Your task to perform on an android device: Open Google Maps and go to "Timeline" Image 0: 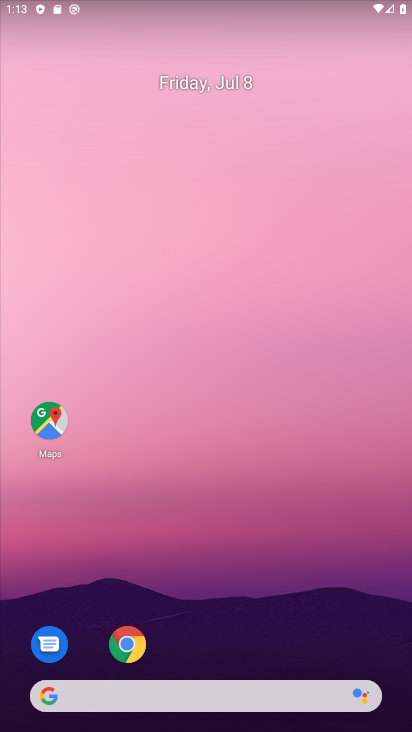
Step 0: press home button
Your task to perform on an android device: Open Google Maps and go to "Timeline" Image 1: 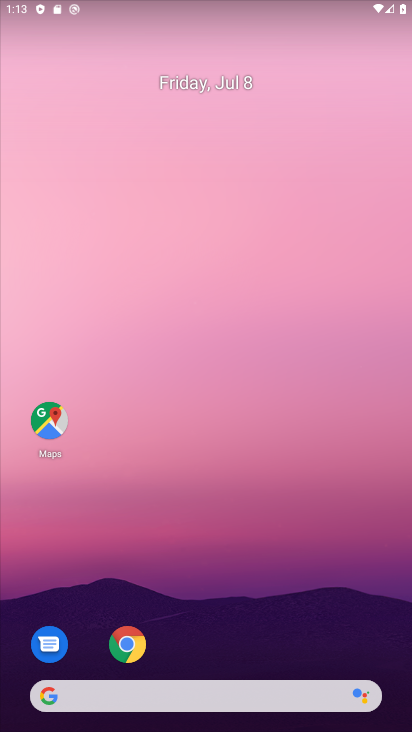
Step 1: drag from (279, 621) to (240, 195)
Your task to perform on an android device: Open Google Maps and go to "Timeline" Image 2: 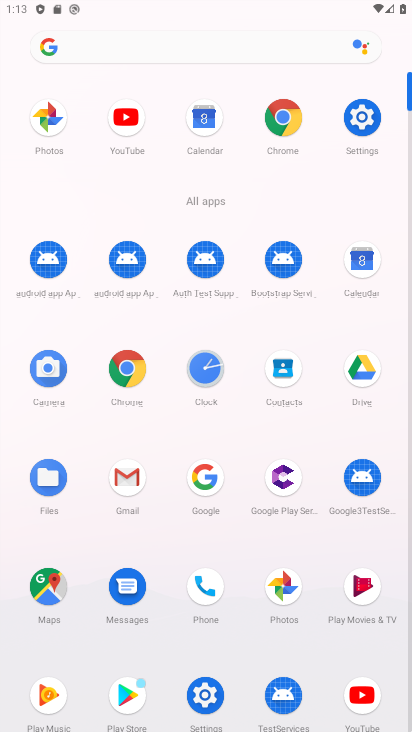
Step 2: click (45, 587)
Your task to perform on an android device: Open Google Maps and go to "Timeline" Image 3: 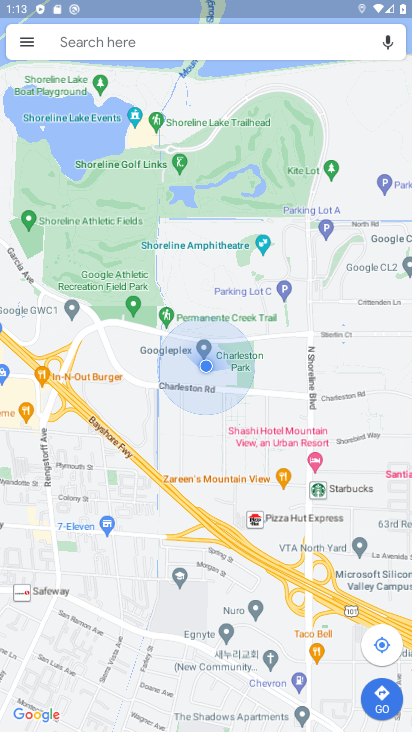
Step 3: click (26, 41)
Your task to perform on an android device: Open Google Maps and go to "Timeline" Image 4: 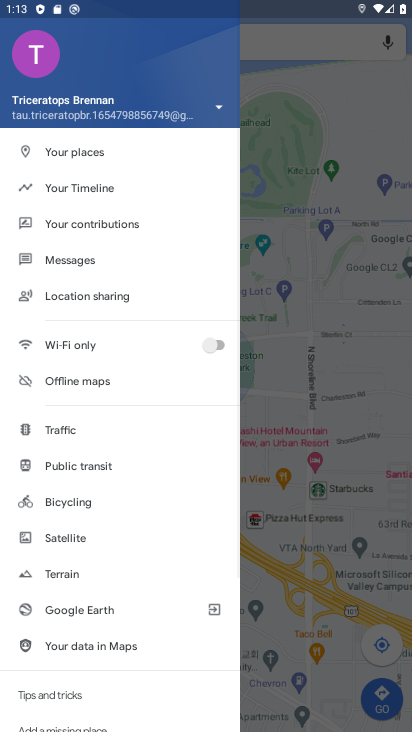
Step 4: click (54, 181)
Your task to perform on an android device: Open Google Maps and go to "Timeline" Image 5: 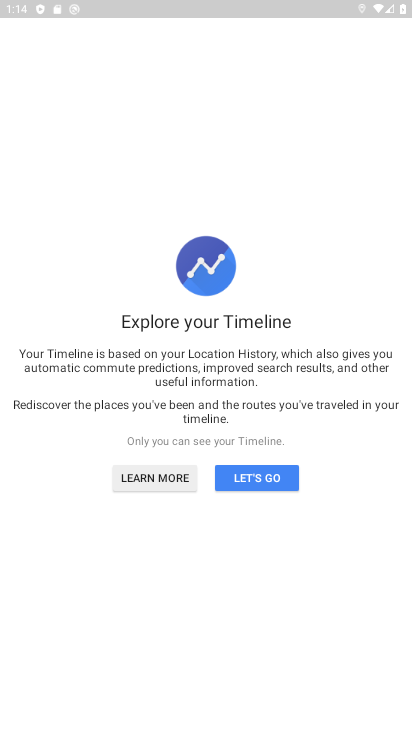
Step 5: click (277, 472)
Your task to perform on an android device: Open Google Maps and go to "Timeline" Image 6: 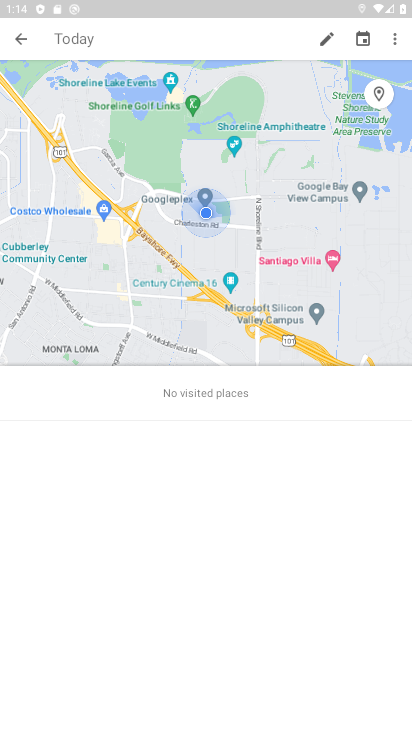
Step 6: task complete